Your task to perform on an android device: read, delete, or share a saved page in the chrome app Image 0: 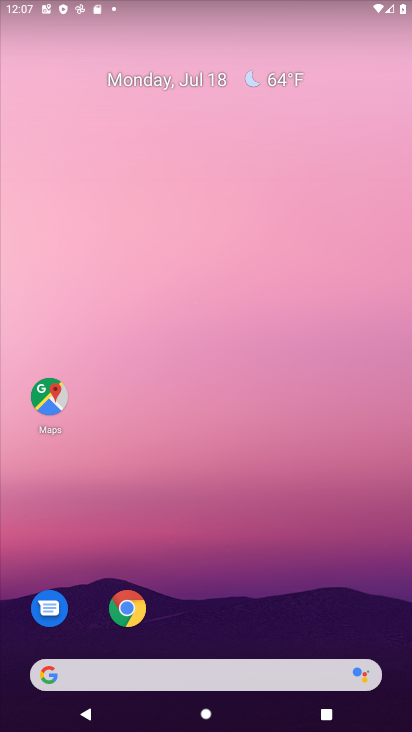
Step 0: drag from (341, 631) to (136, 3)
Your task to perform on an android device: read, delete, or share a saved page in the chrome app Image 1: 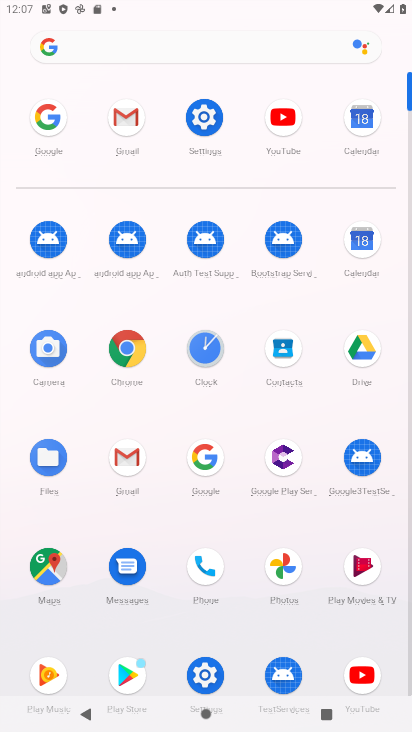
Step 1: click (128, 351)
Your task to perform on an android device: read, delete, or share a saved page in the chrome app Image 2: 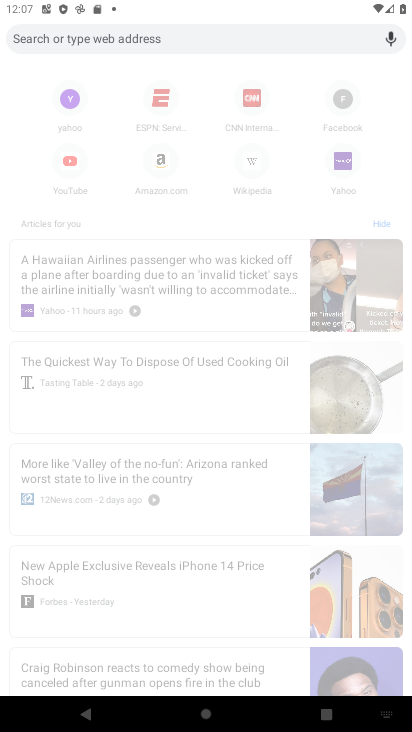
Step 2: task complete